Your task to perform on an android device: uninstall "Google Docs" Image 0: 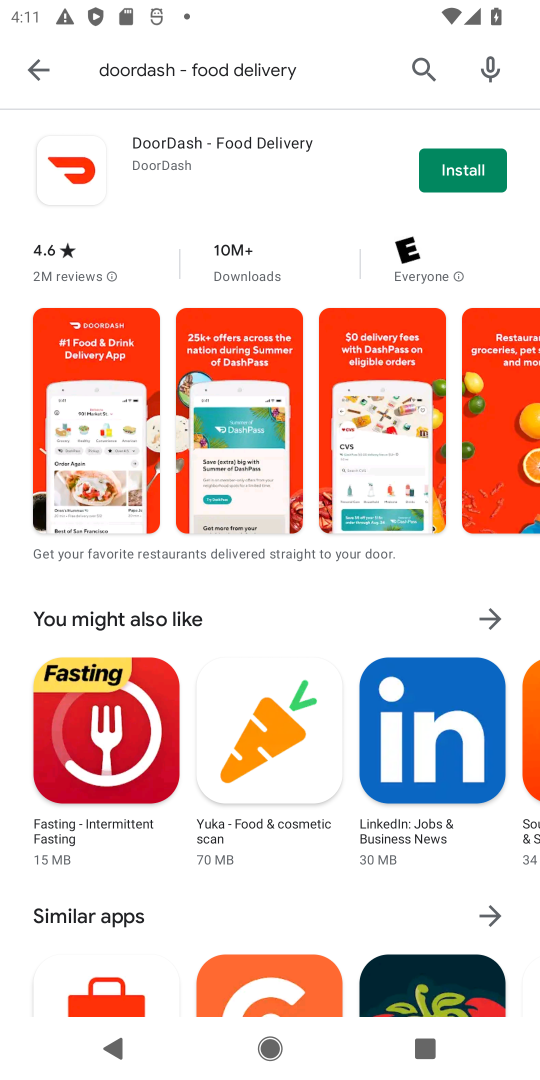
Step 0: press home button
Your task to perform on an android device: uninstall "Google Docs" Image 1: 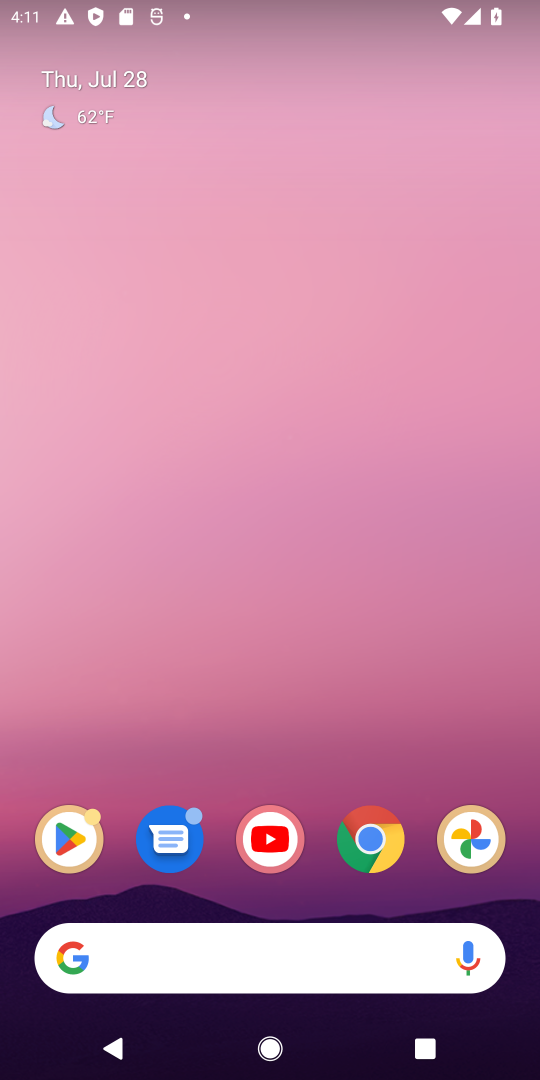
Step 1: drag from (417, 560) to (235, 31)
Your task to perform on an android device: uninstall "Google Docs" Image 2: 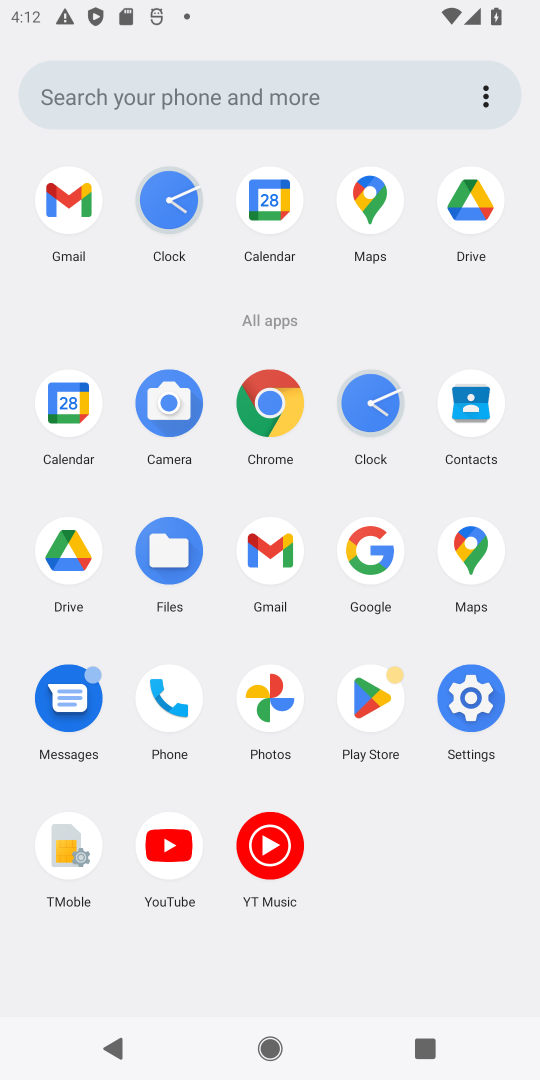
Step 2: click (354, 707)
Your task to perform on an android device: uninstall "Google Docs" Image 3: 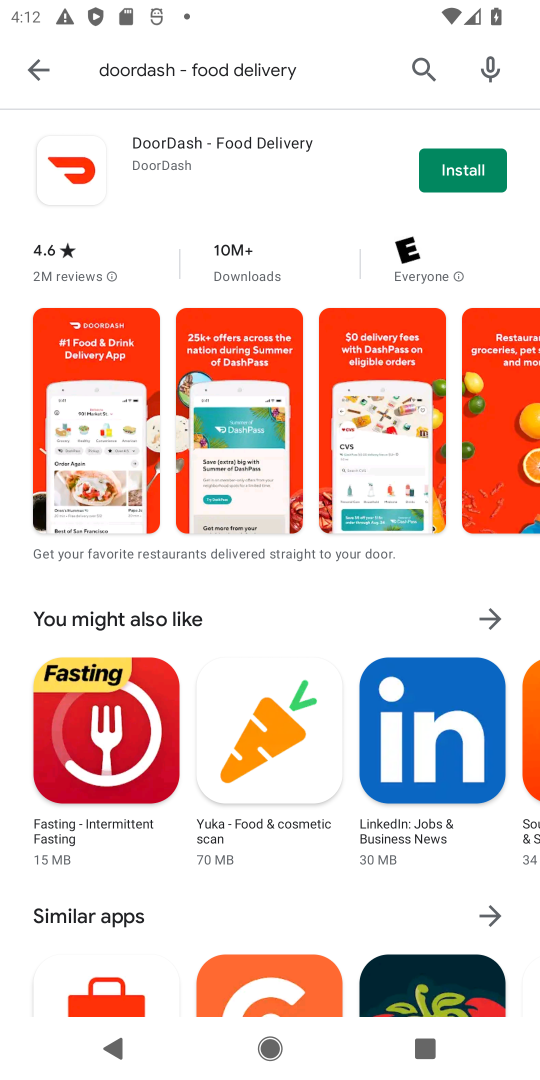
Step 3: press back button
Your task to perform on an android device: uninstall "Google Docs" Image 4: 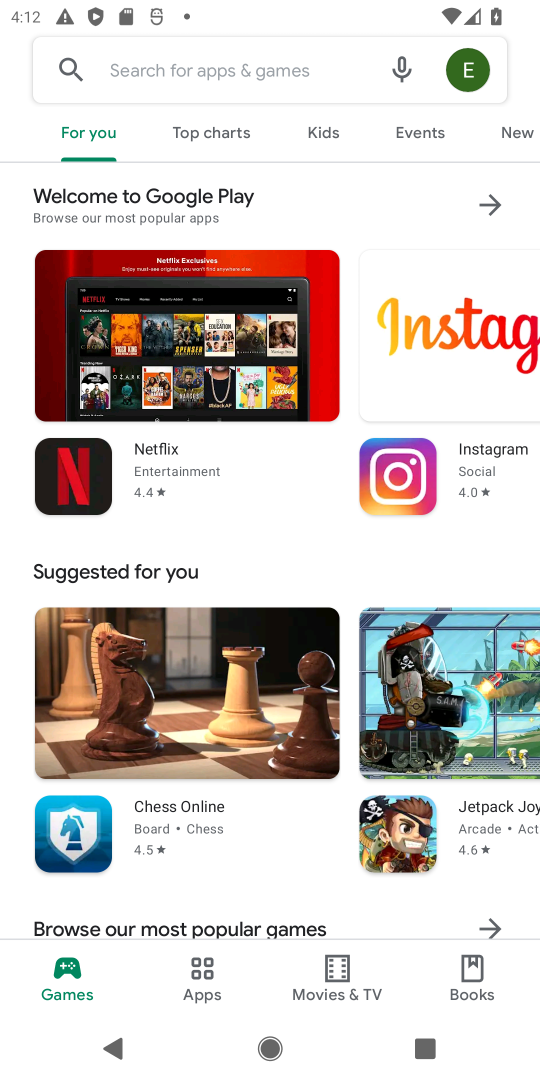
Step 4: click (137, 58)
Your task to perform on an android device: uninstall "Google Docs" Image 5: 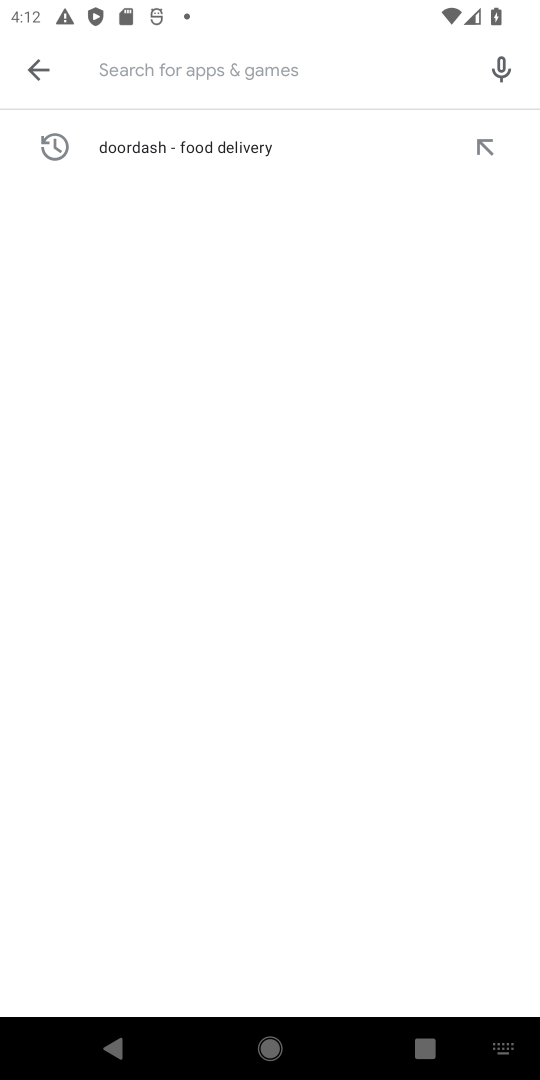
Step 5: type "Google Docs"
Your task to perform on an android device: uninstall "Google Docs" Image 6: 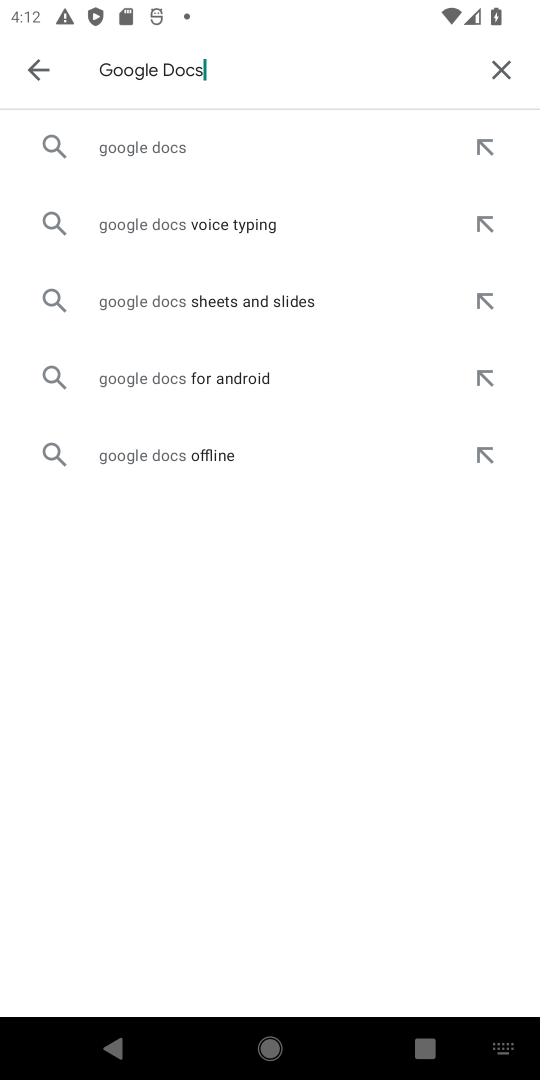
Step 6: click (176, 152)
Your task to perform on an android device: uninstall "Google Docs" Image 7: 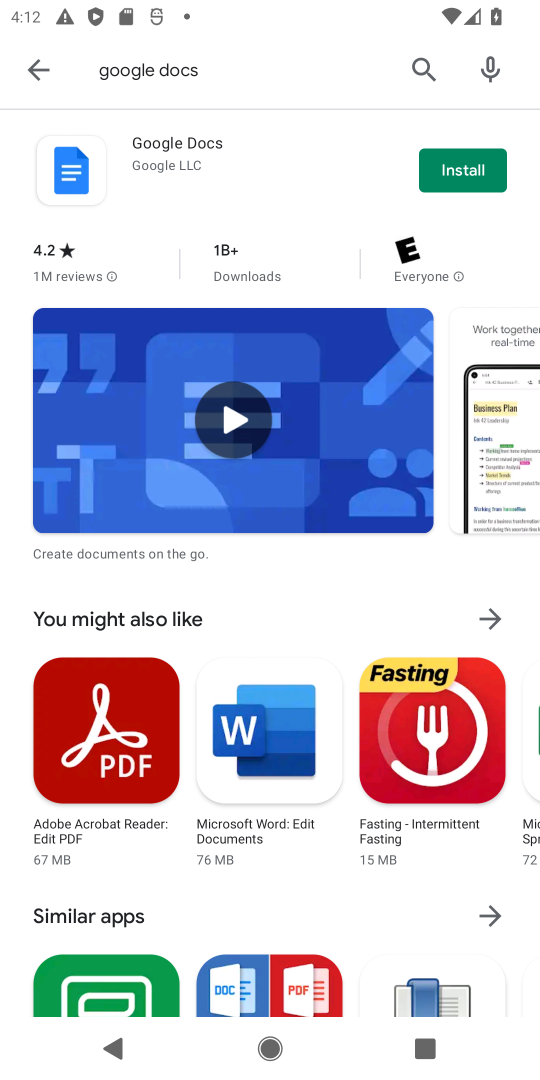
Step 7: task complete